Your task to perform on an android device: Check the news Image 0: 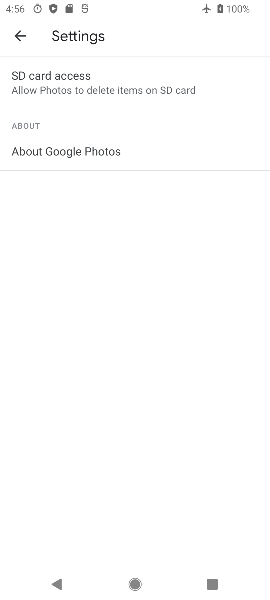
Step 0: press back button
Your task to perform on an android device: Check the news Image 1: 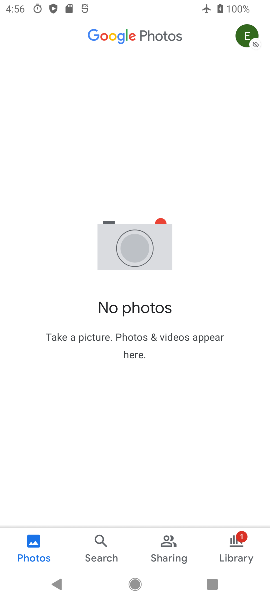
Step 1: press home button
Your task to perform on an android device: Check the news Image 2: 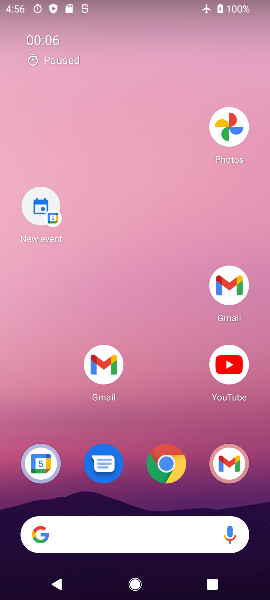
Step 2: press back button
Your task to perform on an android device: Check the news Image 3: 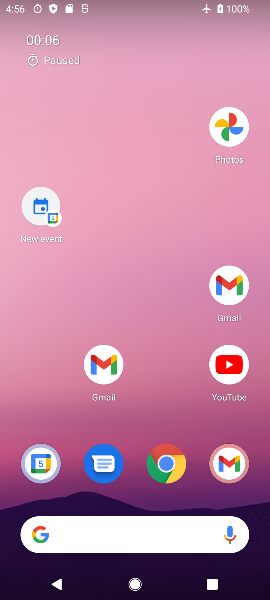
Step 3: drag from (180, 581) to (137, 210)
Your task to perform on an android device: Check the news Image 4: 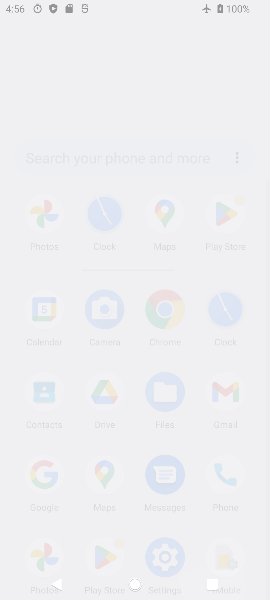
Step 4: drag from (148, 477) to (127, 278)
Your task to perform on an android device: Check the news Image 5: 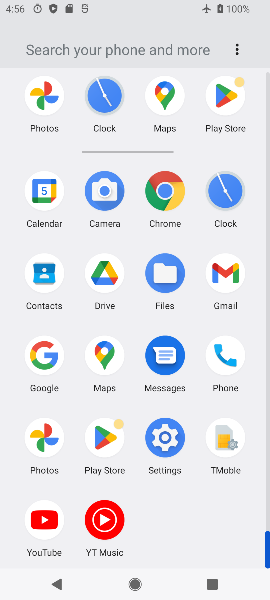
Step 5: click (161, 191)
Your task to perform on an android device: Check the news Image 6: 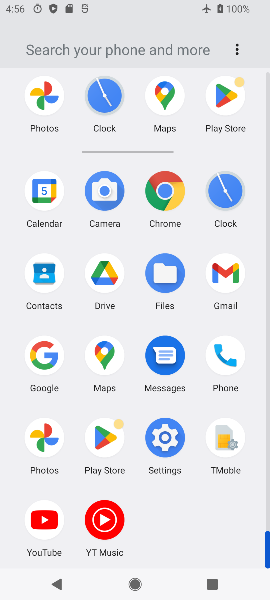
Step 6: click (161, 191)
Your task to perform on an android device: Check the news Image 7: 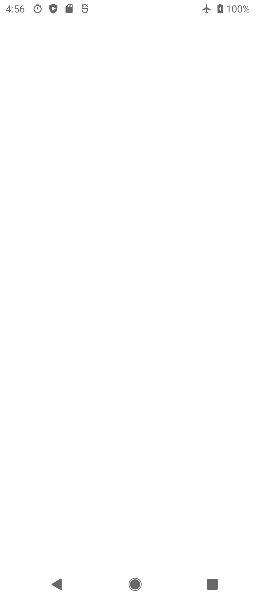
Step 7: click (162, 190)
Your task to perform on an android device: Check the news Image 8: 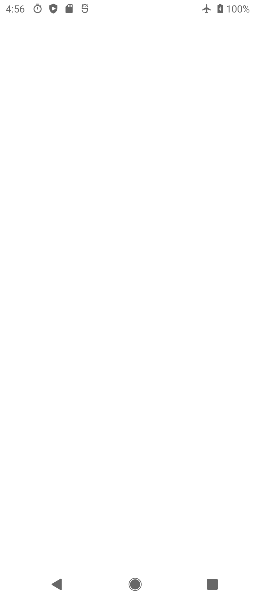
Step 8: click (166, 193)
Your task to perform on an android device: Check the news Image 9: 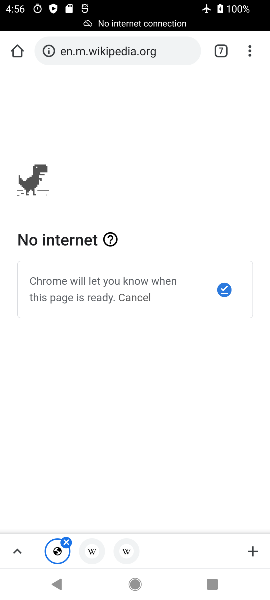
Step 9: drag from (250, 47) to (124, 138)
Your task to perform on an android device: Check the news Image 10: 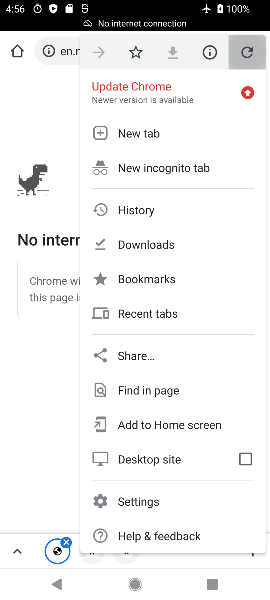
Step 10: click (132, 132)
Your task to perform on an android device: Check the news Image 11: 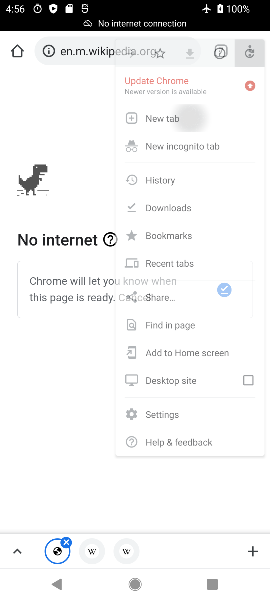
Step 11: click (136, 133)
Your task to perform on an android device: Check the news Image 12: 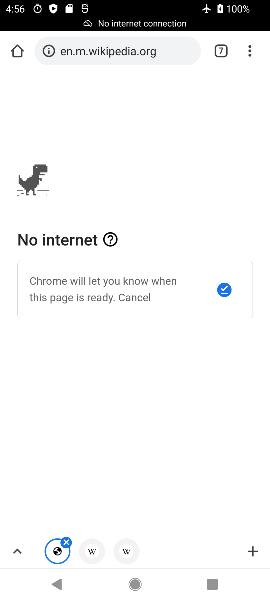
Step 12: click (137, 132)
Your task to perform on an android device: Check the news Image 13: 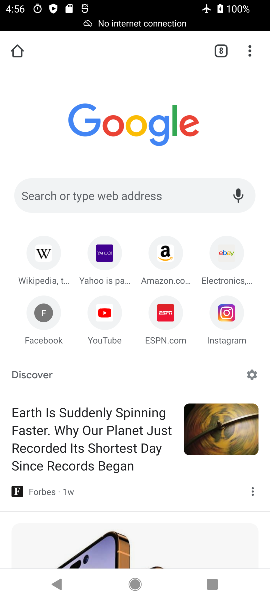
Step 13: task complete